Your task to perform on an android device: Empty the shopping cart on amazon. Add lg ultragear to the cart on amazon Image 0: 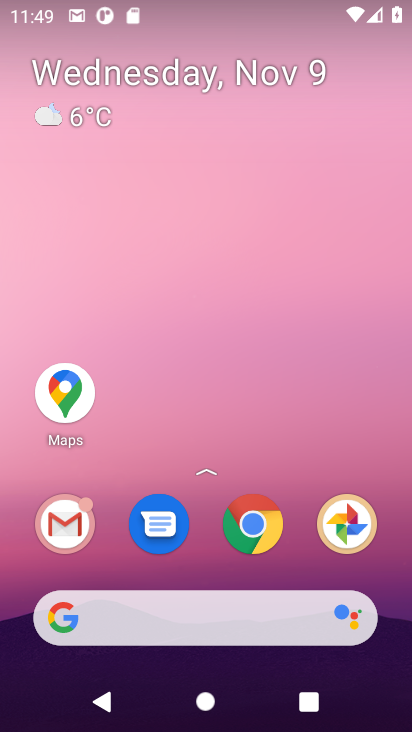
Step 0: click (168, 630)
Your task to perform on an android device: Empty the shopping cart on amazon. Add lg ultragear to the cart on amazon Image 1: 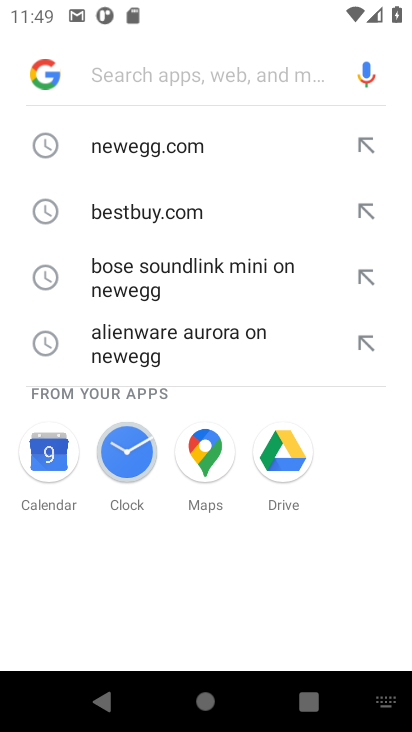
Step 1: type "lg ultragear on amazon"
Your task to perform on an android device: Empty the shopping cart on amazon. Add lg ultragear to the cart on amazon Image 2: 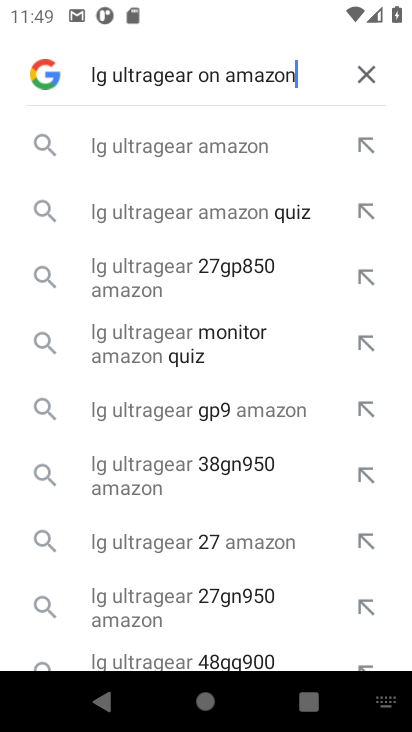
Step 2: click (260, 142)
Your task to perform on an android device: Empty the shopping cart on amazon. Add lg ultragear to the cart on amazon Image 3: 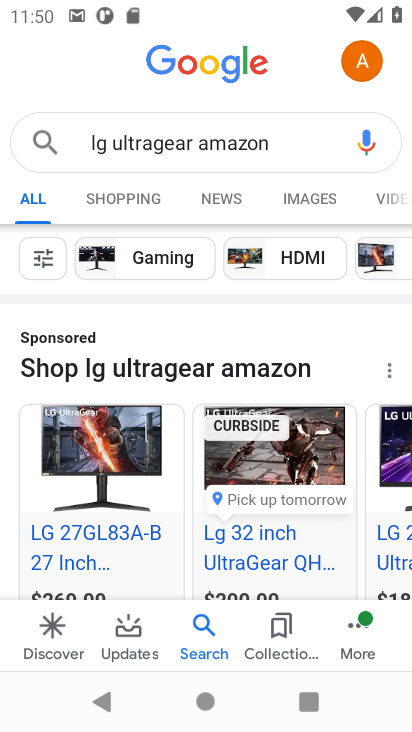
Step 3: drag from (145, 560) to (306, 214)
Your task to perform on an android device: Empty the shopping cart on amazon. Add lg ultragear to the cart on amazon Image 4: 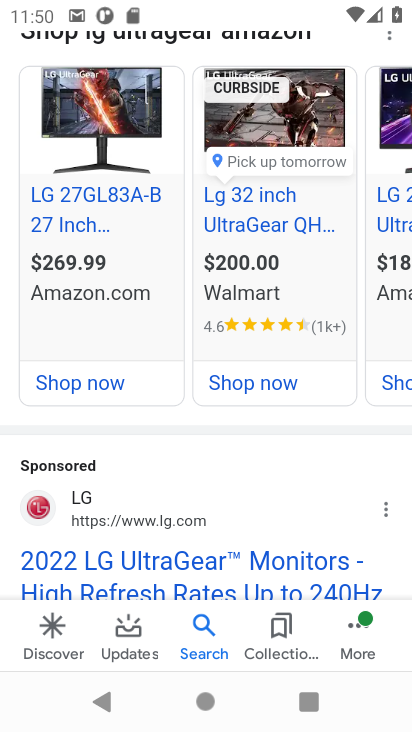
Step 4: drag from (399, 214) to (146, 265)
Your task to perform on an android device: Empty the shopping cart on amazon. Add lg ultragear to the cart on amazon Image 5: 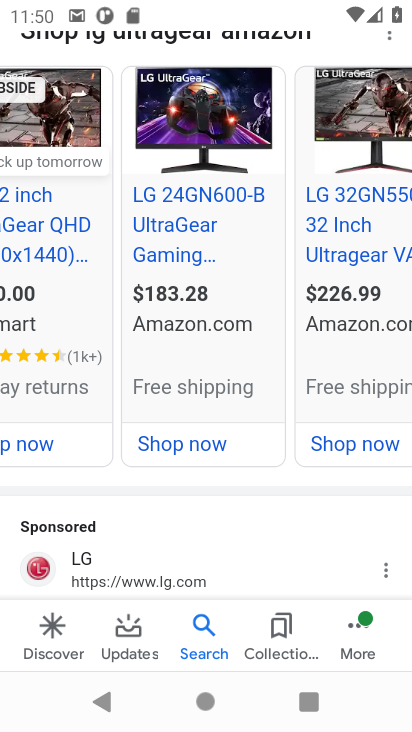
Step 5: click (172, 206)
Your task to perform on an android device: Empty the shopping cart on amazon. Add lg ultragear to the cart on amazon Image 6: 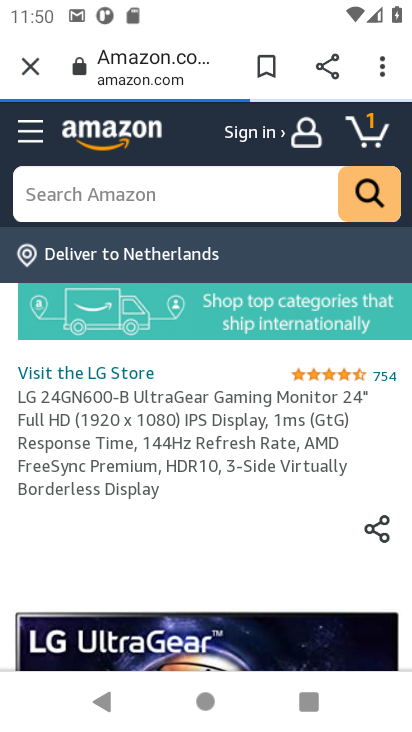
Step 6: drag from (170, 530) to (287, 151)
Your task to perform on an android device: Empty the shopping cart on amazon. Add lg ultragear to the cart on amazon Image 7: 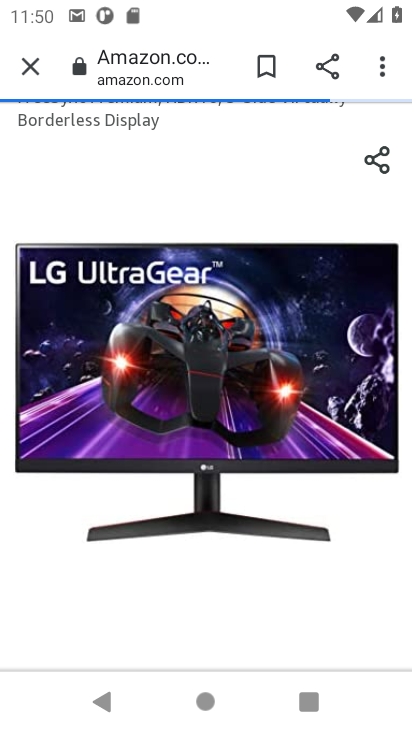
Step 7: drag from (271, 597) to (392, 374)
Your task to perform on an android device: Empty the shopping cart on amazon. Add lg ultragear to the cart on amazon Image 8: 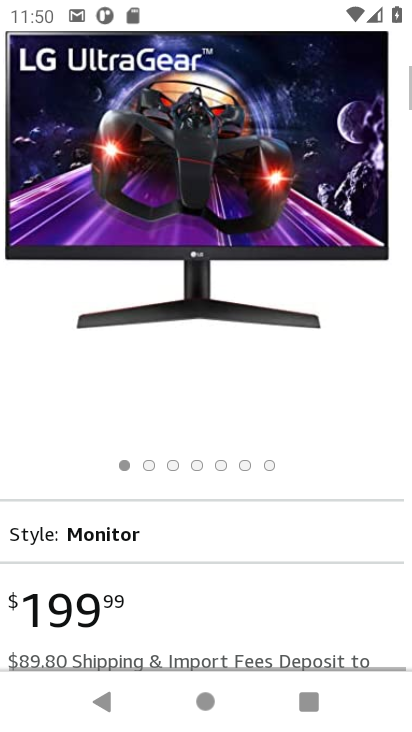
Step 8: drag from (294, 437) to (411, 0)
Your task to perform on an android device: Empty the shopping cart on amazon. Add lg ultragear to the cart on amazon Image 9: 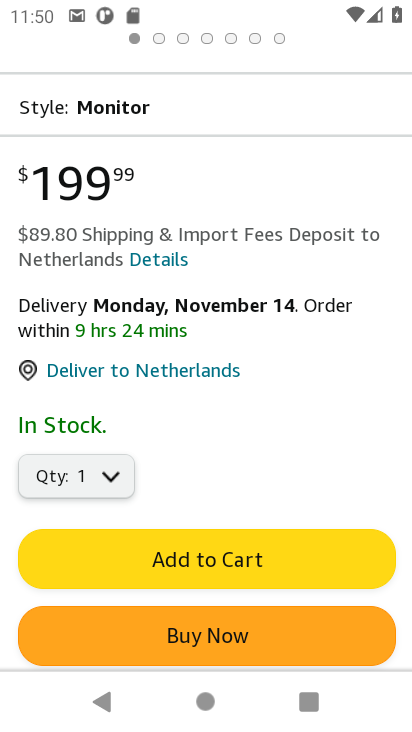
Step 9: click (198, 553)
Your task to perform on an android device: Empty the shopping cart on amazon. Add lg ultragear to the cart on amazon Image 10: 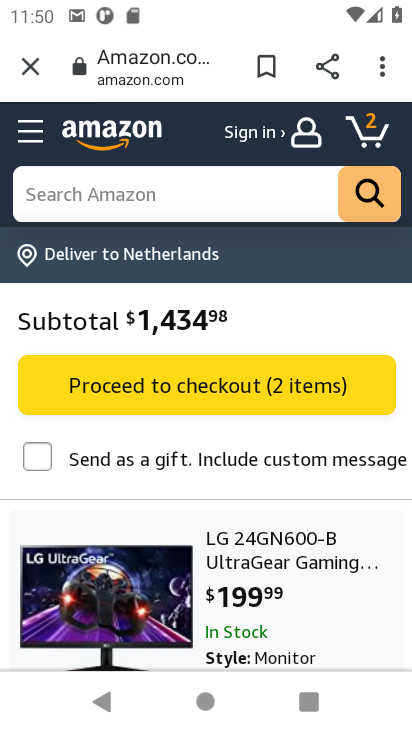
Step 10: drag from (184, 555) to (274, 266)
Your task to perform on an android device: Empty the shopping cart on amazon. Add lg ultragear to the cart on amazon Image 11: 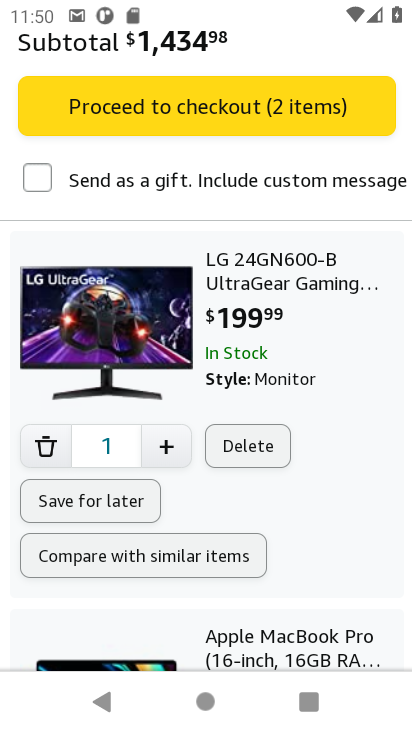
Step 11: drag from (212, 612) to (370, 165)
Your task to perform on an android device: Empty the shopping cart on amazon. Add lg ultragear to the cart on amazon Image 12: 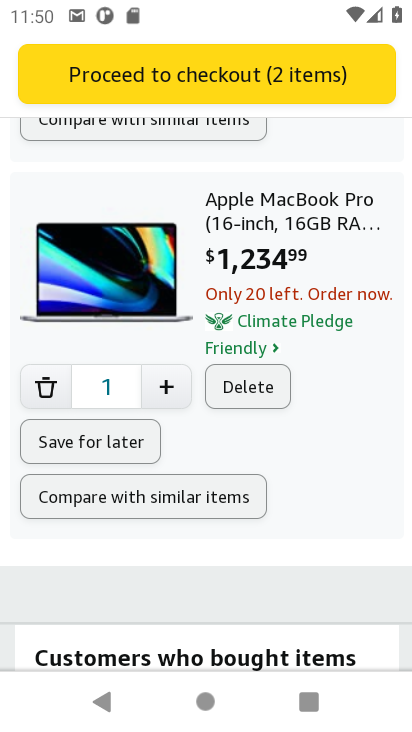
Step 12: click (234, 391)
Your task to perform on an android device: Empty the shopping cart on amazon. Add lg ultragear to the cart on amazon Image 13: 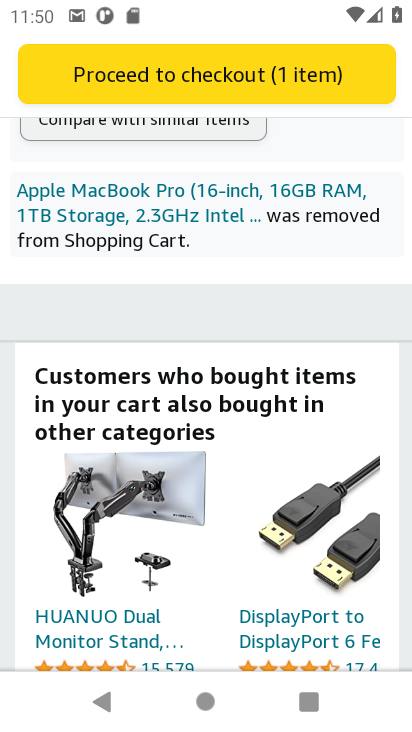
Step 13: task complete